Your task to perform on an android device: add a label to a message in the gmail app Image 0: 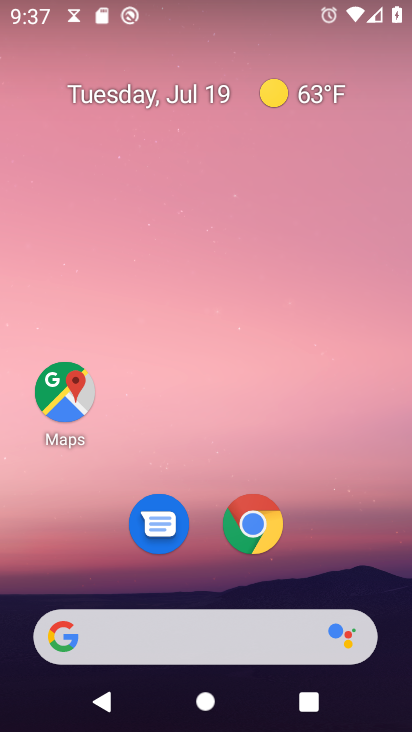
Step 0: drag from (199, 649) to (314, 151)
Your task to perform on an android device: add a label to a message in the gmail app Image 1: 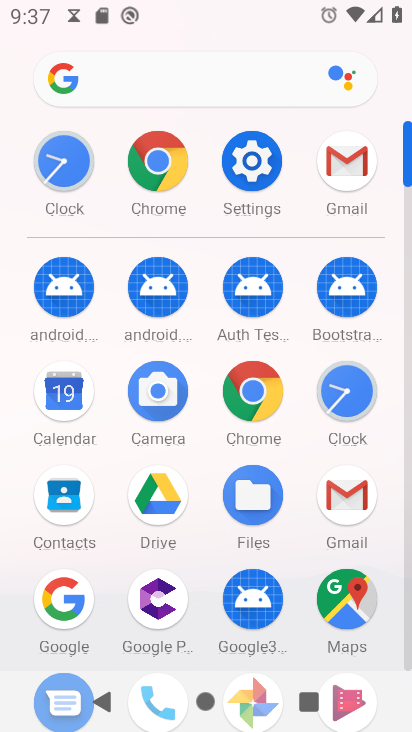
Step 1: click (339, 170)
Your task to perform on an android device: add a label to a message in the gmail app Image 2: 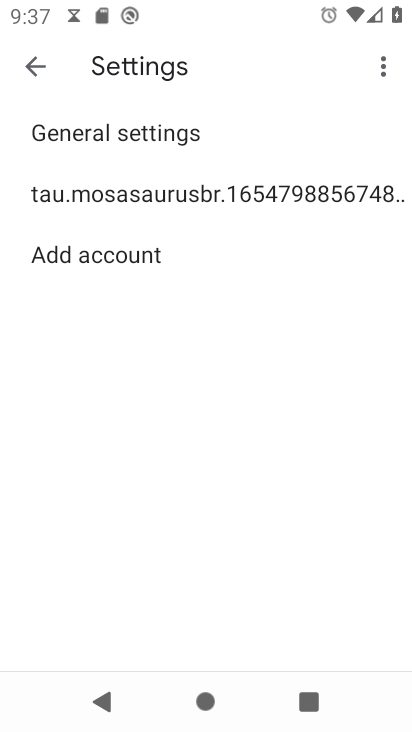
Step 2: click (209, 189)
Your task to perform on an android device: add a label to a message in the gmail app Image 3: 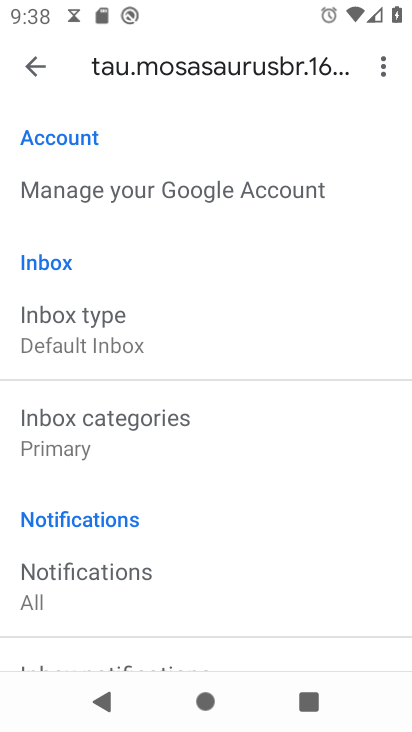
Step 3: click (29, 65)
Your task to perform on an android device: add a label to a message in the gmail app Image 4: 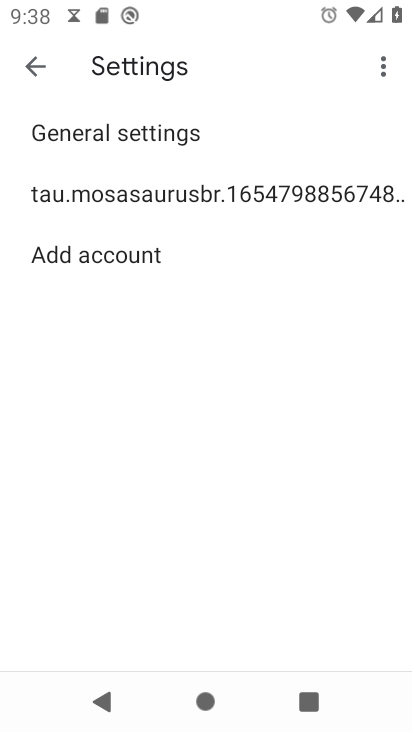
Step 4: click (30, 65)
Your task to perform on an android device: add a label to a message in the gmail app Image 5: 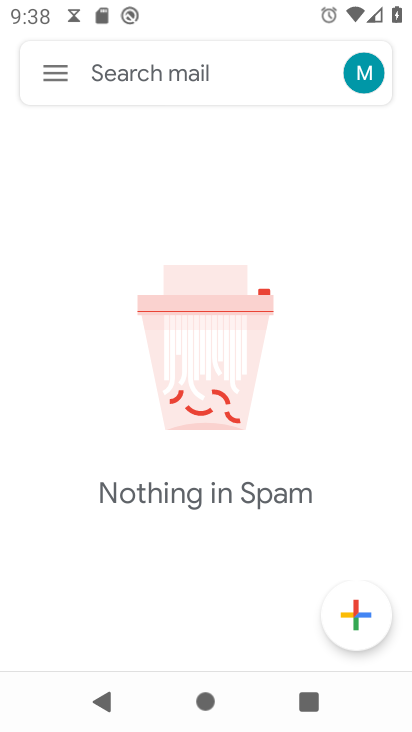
Step 5: click (58, 74)
Your task to perform on an android device: add a label to a message in the gmail app Image 6: 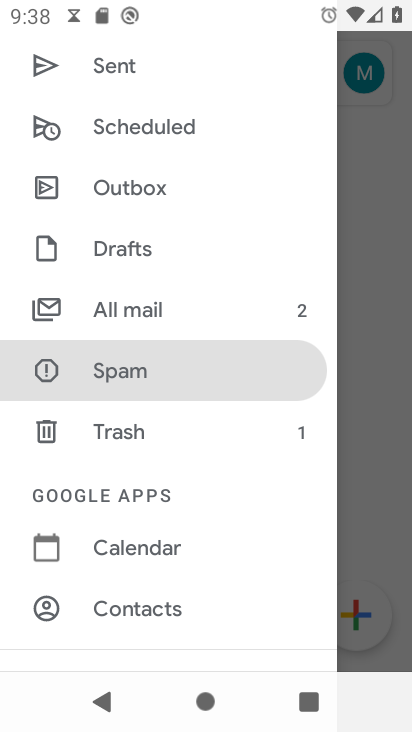
Step 6: click (150, 299)
Your task to perform on an android device: add a label to a message in the gmail app Image 7: 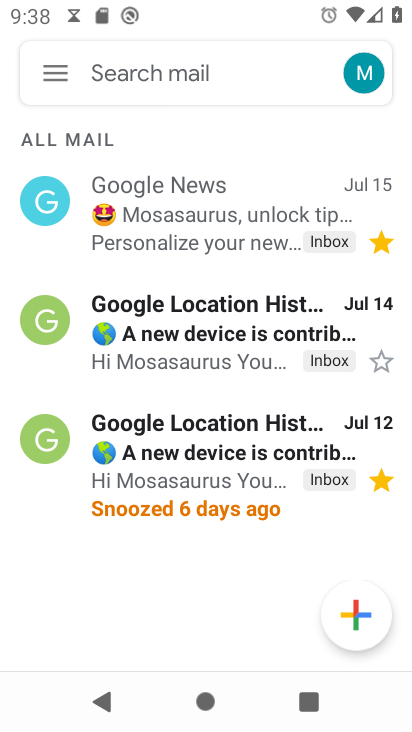
Step 7: click (58, 71)
Your task to perform on an android device: add a label to a message in the gmail app Image 8: 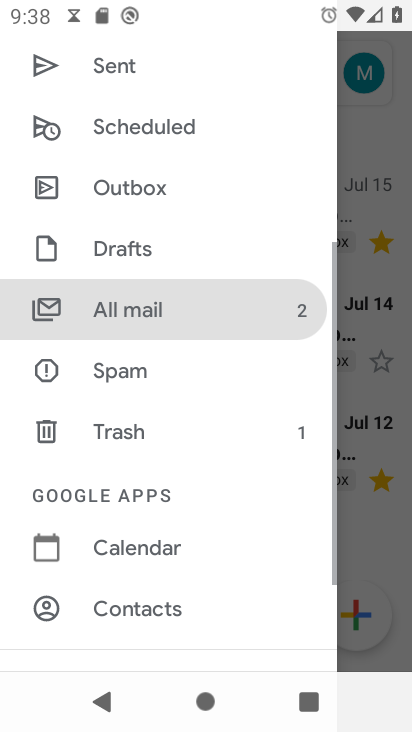
Step 8: drag from (221, 165) to (230, 541)
Your task to perform on an android device: add a label to a message in the gmail app Image 9: 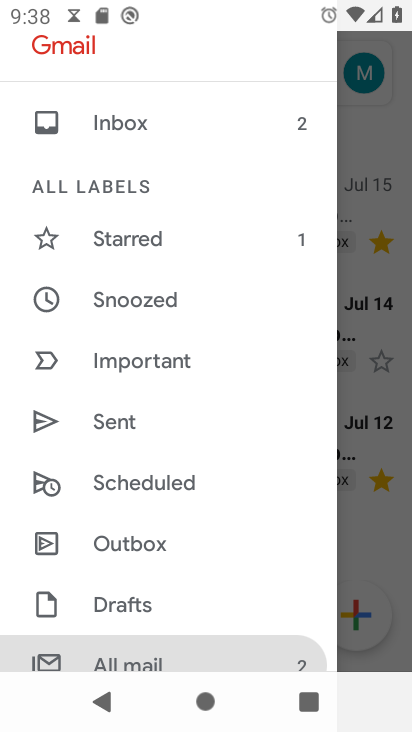
Step 9: click (145, 127)
Your task to perform on an android device: add a label to a message in the gmail app Image 10: 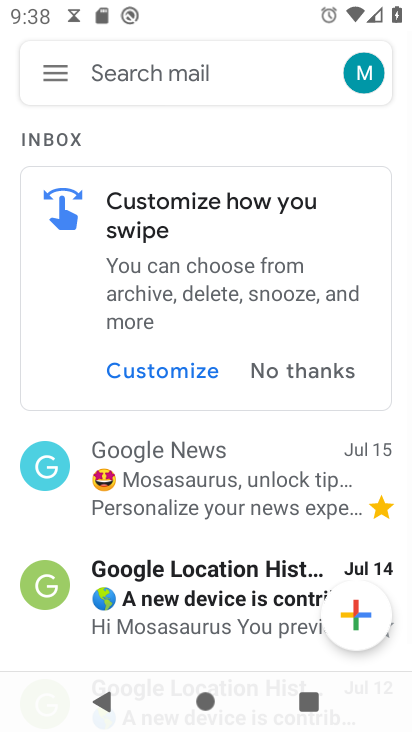
Step 10: drag from (213, 533) to (313, 248)
Your task to perform on an android device: add a label to a message in the gmail app Image 11: 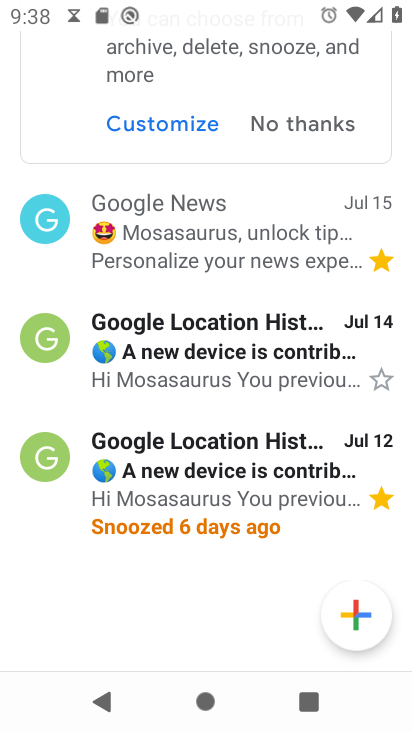
Step 11: click (226, 236)
Your task to perform on an android device: add a label to a message in the gmail app Image 12: 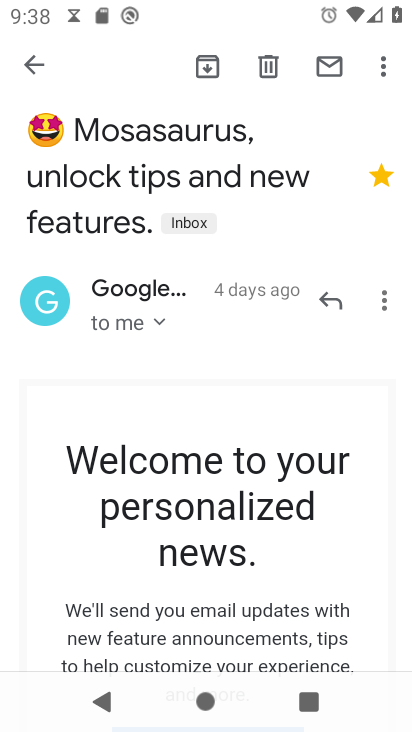
Step 12: click (197, 218)
Your task to perform on an android device: add a label to a message in the gmail app Image 13: 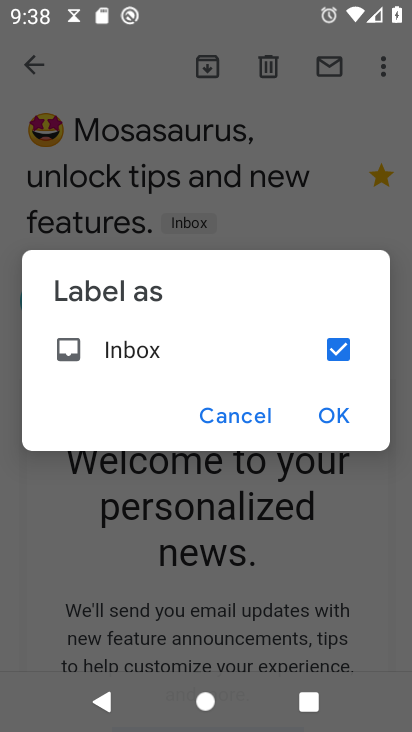
Step 13: task complete